Your task to perform on an android device: make emails show in primary in the gmail app Image 0: 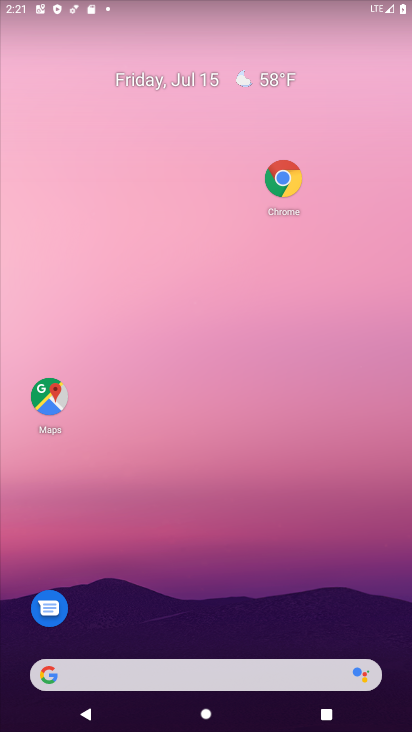
Step 0: drag from (235, 585) to (233, 153)
Your task to perform on an android device: make emails show in primary in the gmail app Image 1: 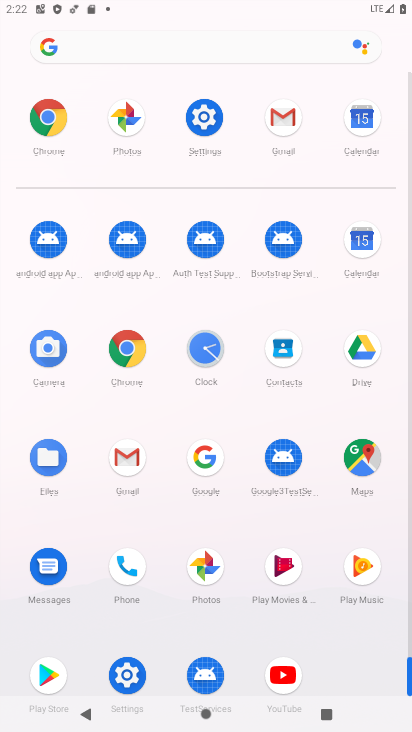
Step 1: click (113, 449)
Your task to perform on an android device: make emails show in primary in the gmail app Image 2: 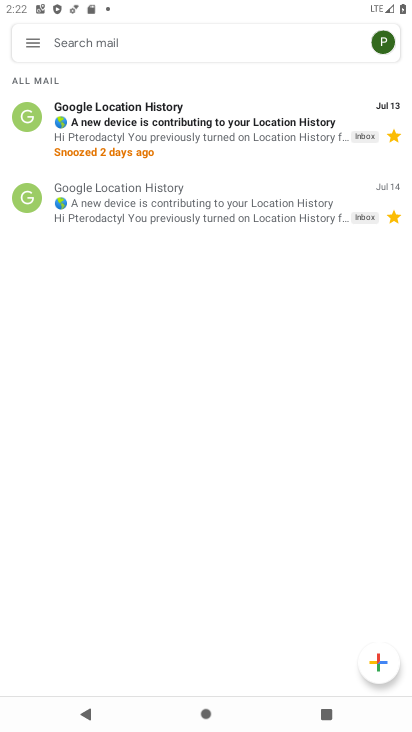
Step 2: click (41, 39)
Your task to perform on an android device: make emails show in primary in the gmail app Image 3: 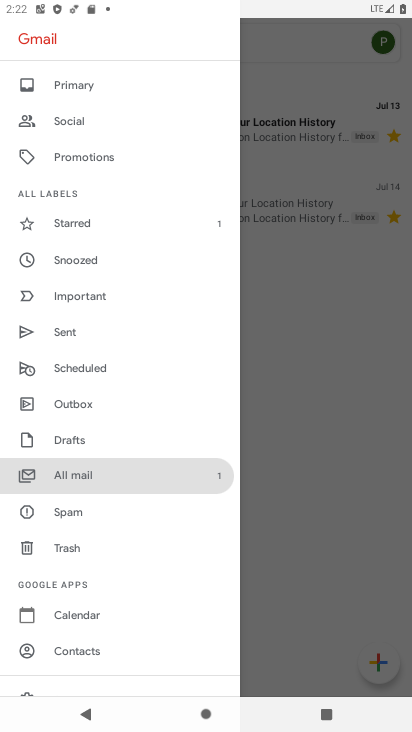
Step 3: click (80, 80)
Your task to perform on an android device: make emails show in primary in the gmail app Image 4: 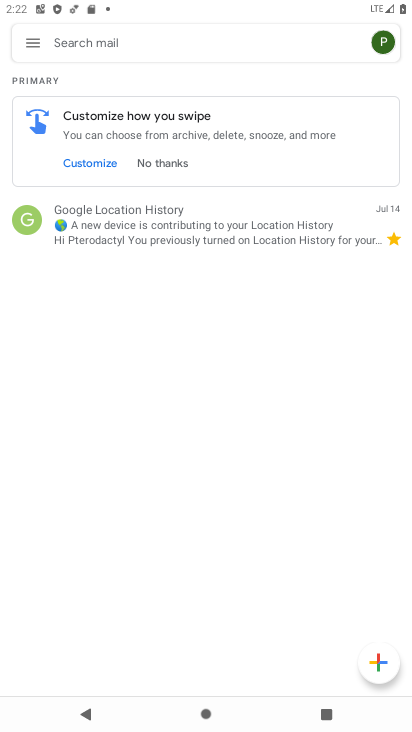
Step 4: task complete